Your task to perform on an android device: Search for good Thai restaurants Image 0: 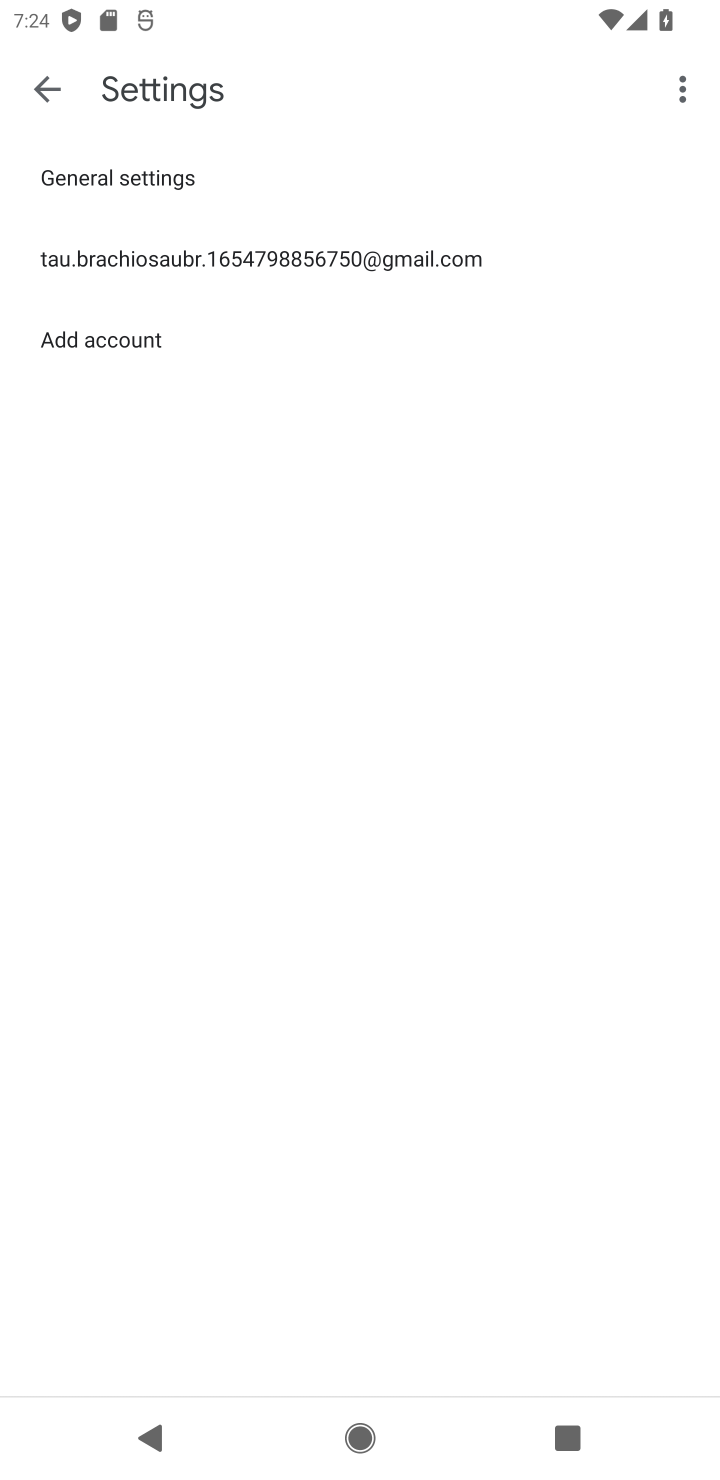
Step 0: press home button
Your task to perform on an android device: Search for good Thai restaurants Image 1: 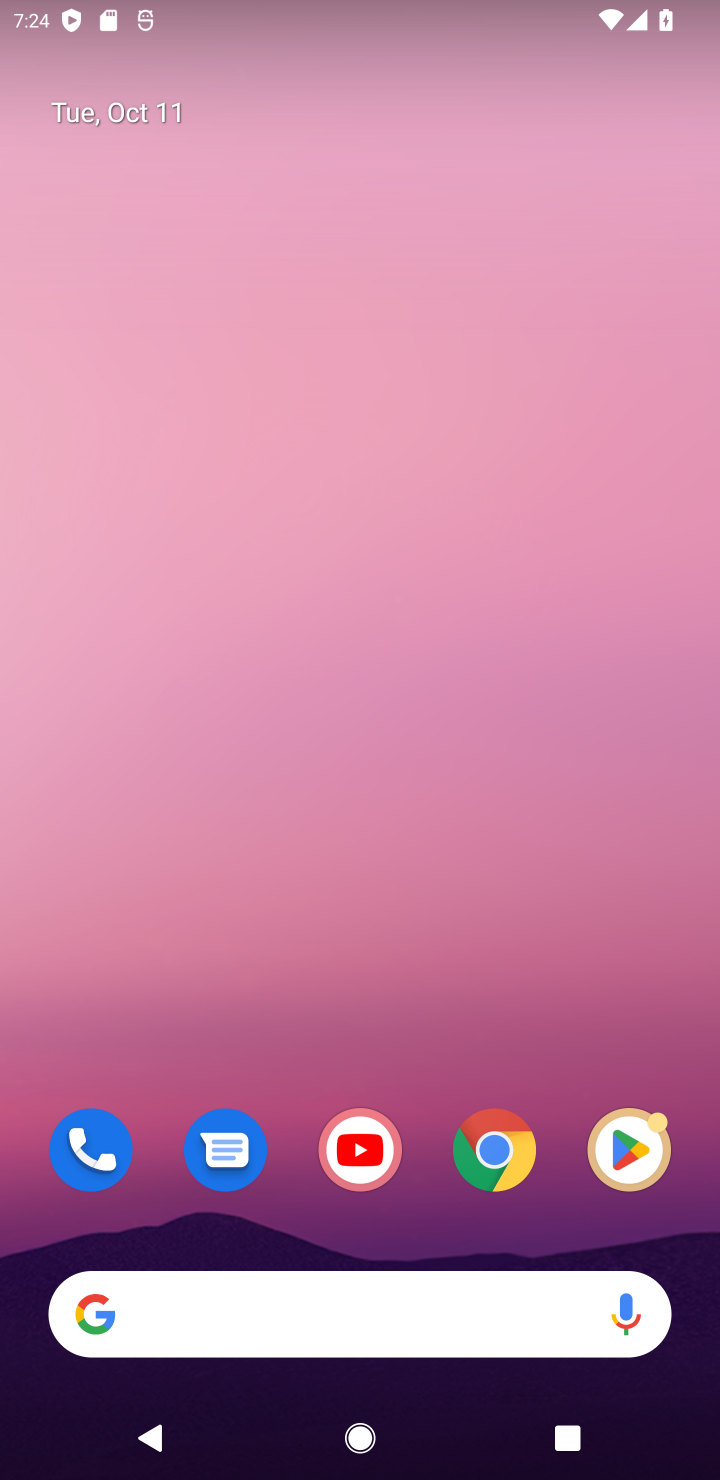
Step 1: click (467, 1145)
Your task to perform on an android device: Search for good Thai restaurants Image 2: 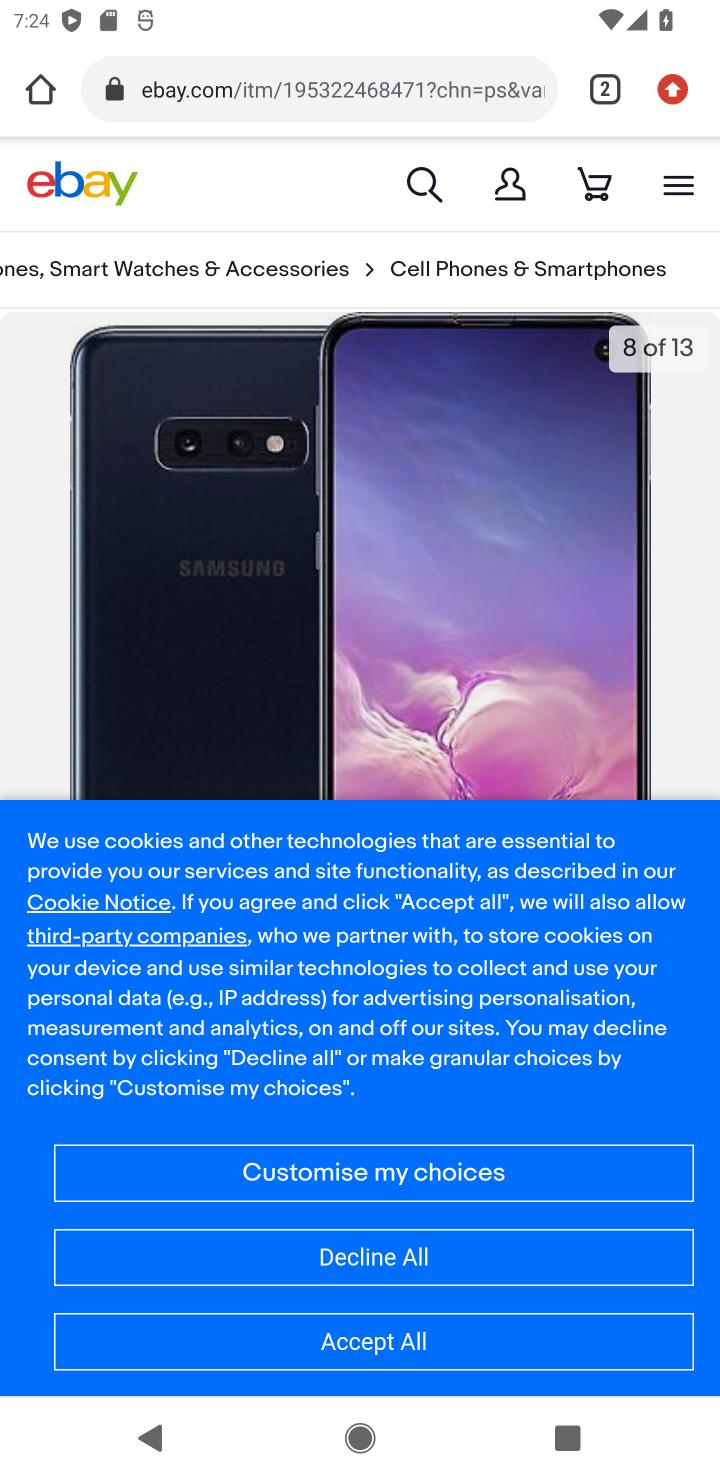
Step 2: click (251, 81)
Your task to perform on an android device: Search for good Thai restaurants Image 3: 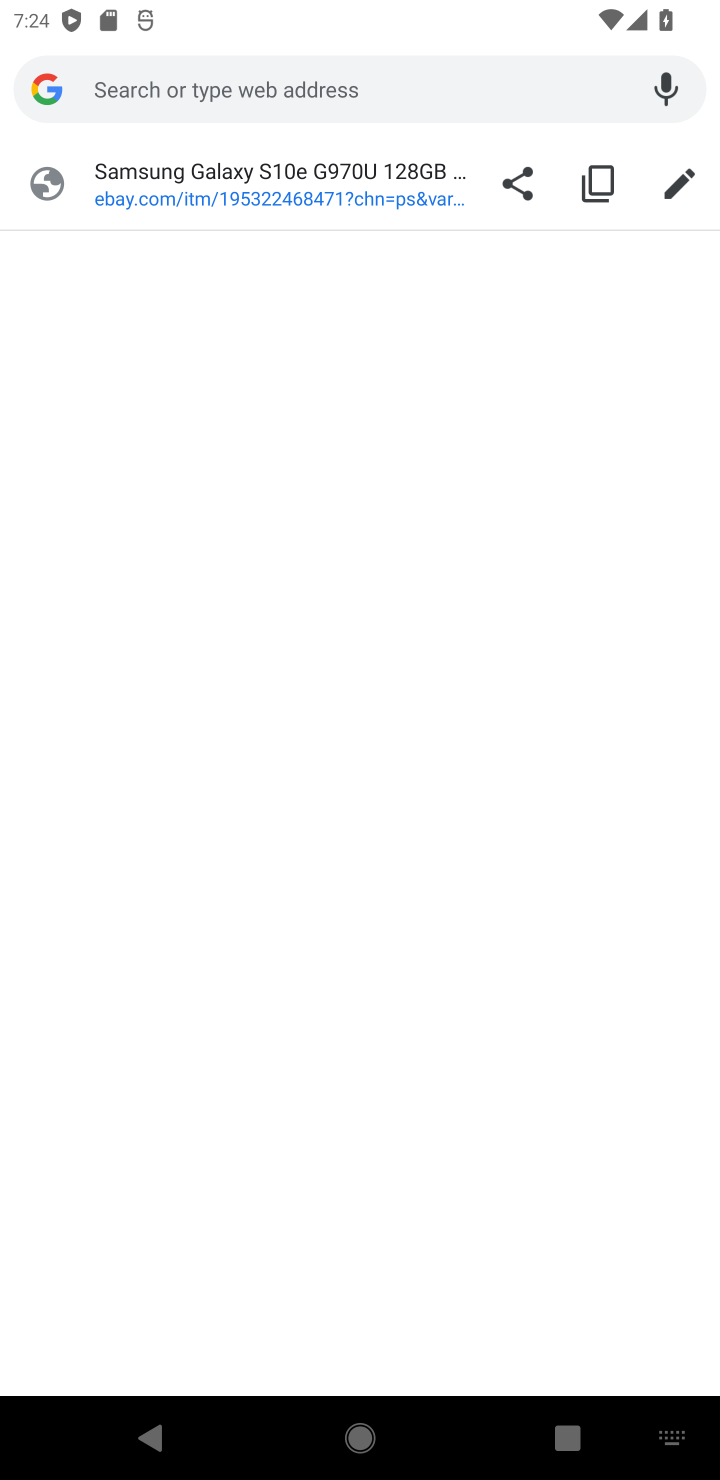
Step 3: type "good Thai restaurants"
Your task to perform on an android device: Search for good Thai restaurants Image 4: 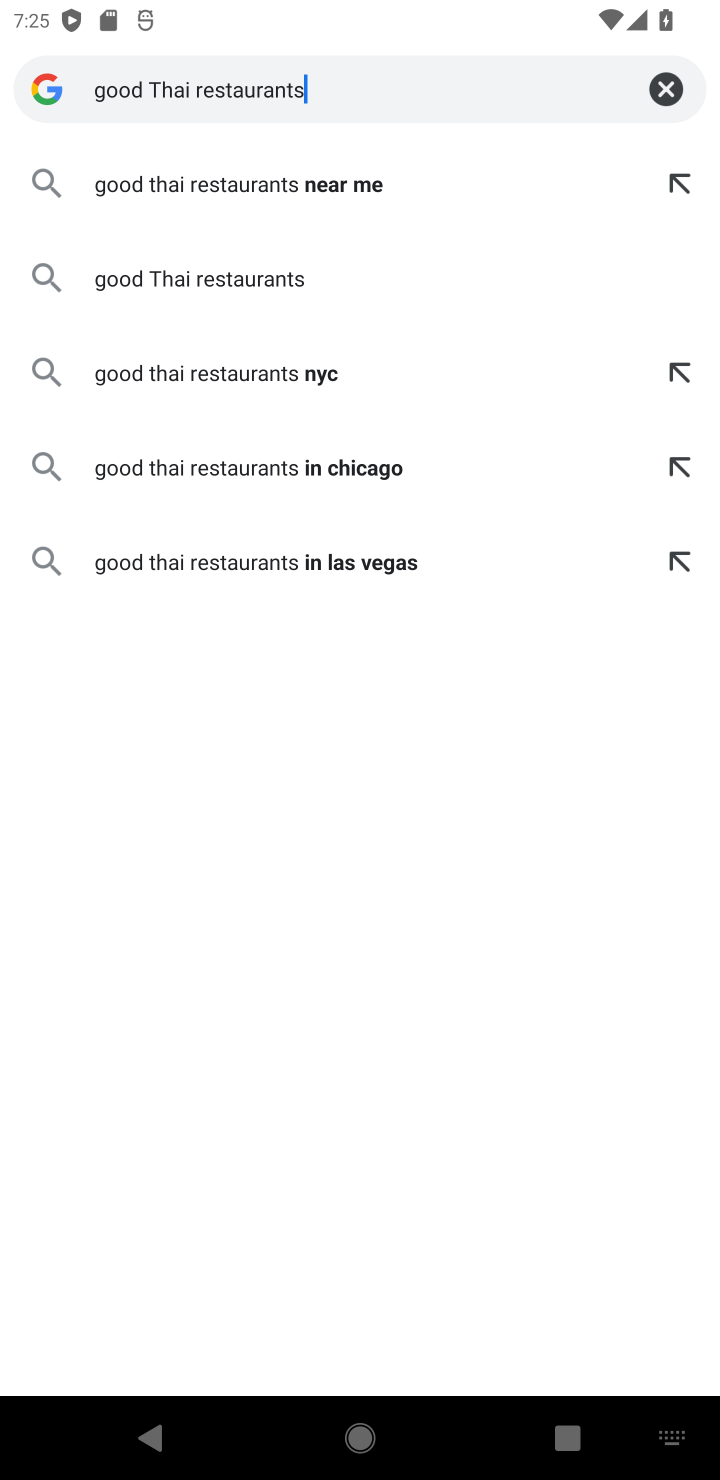
Step 4: click (222, 277)
Your task to perform on an android device: Search for good Thai restaurants Image 5: 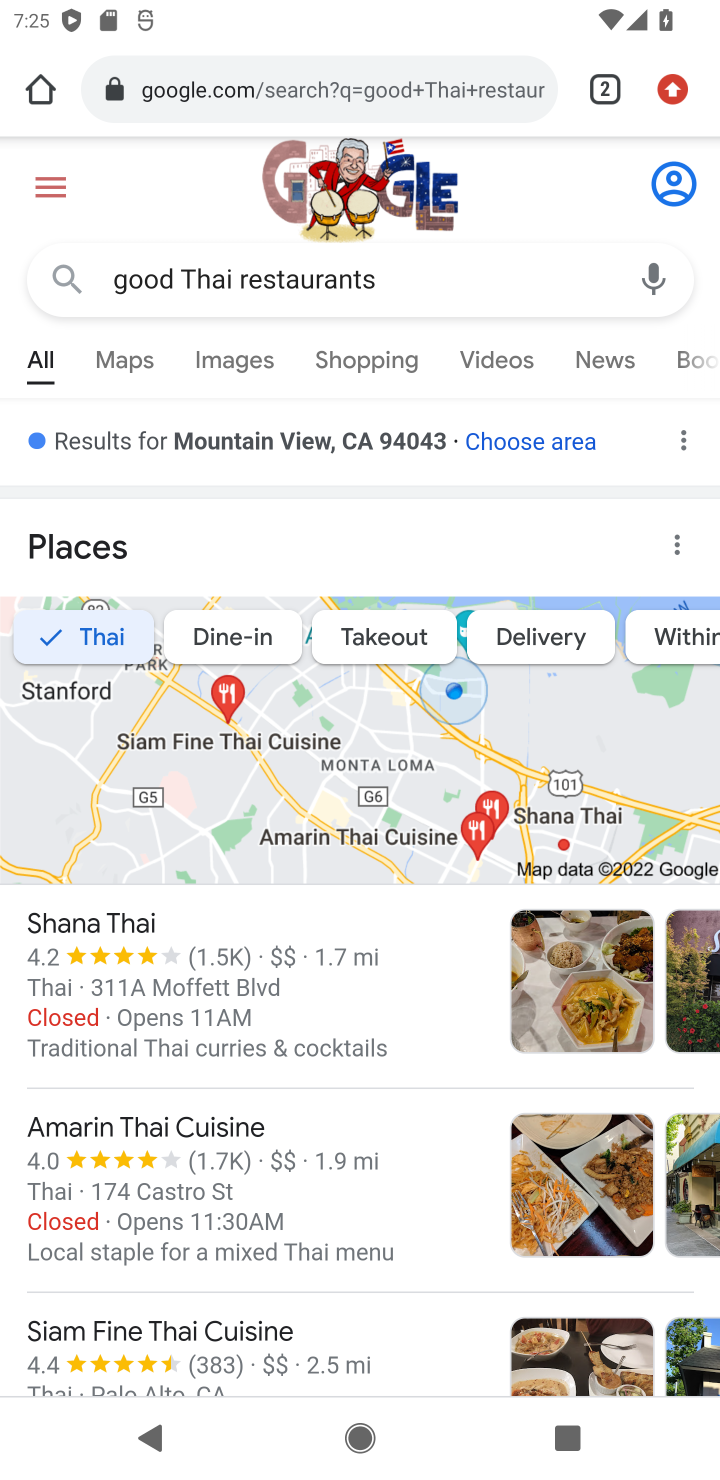
Step 5: task complete